Your task to perform on an android device: Open CNN.com Image 0: 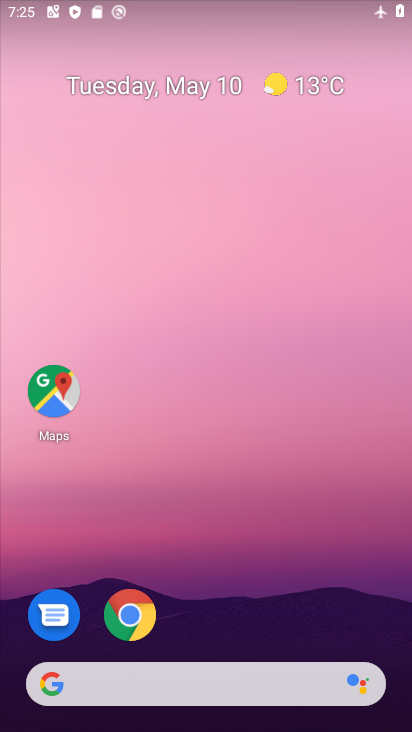
Step 0: click (125, 623)
Your task to perform on an android device: Open CNN.com Image 1: 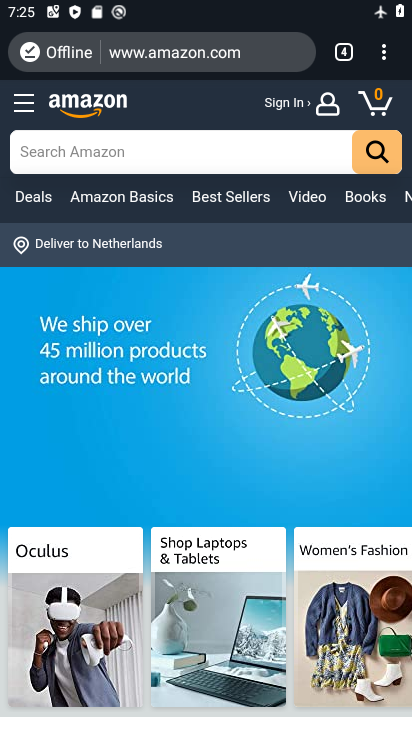
Step 1: click (381, 55)
Your task to perform on an android device: Open CNN.com Image 2: 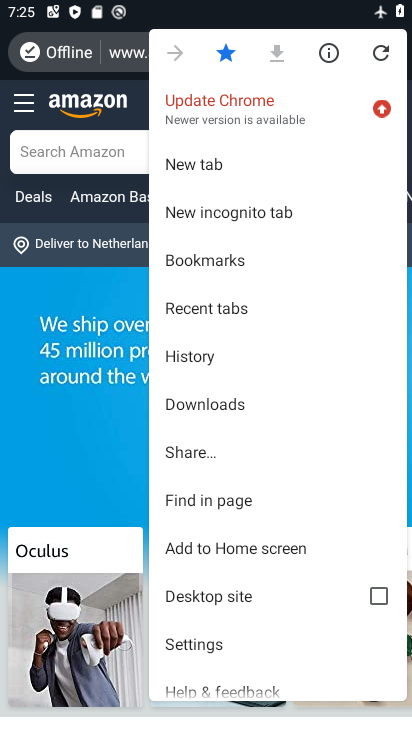
Step 2: click (211, 163)
Your task to perform on an android device: Open CNN.com Image 3: 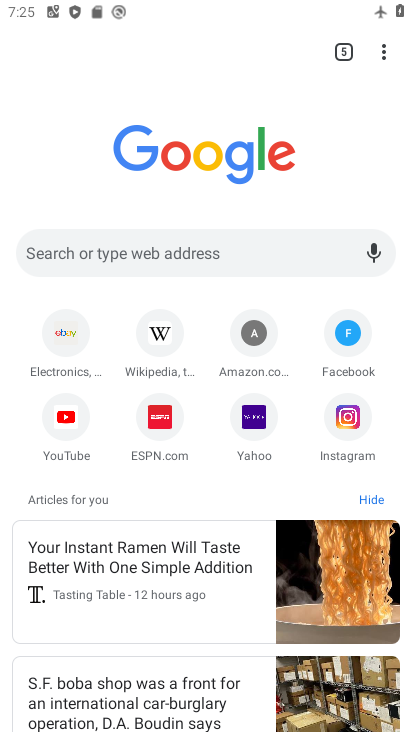
Step 3: click (175, 246)
Your task to perform on an android device: Open CNN.com Image 4: 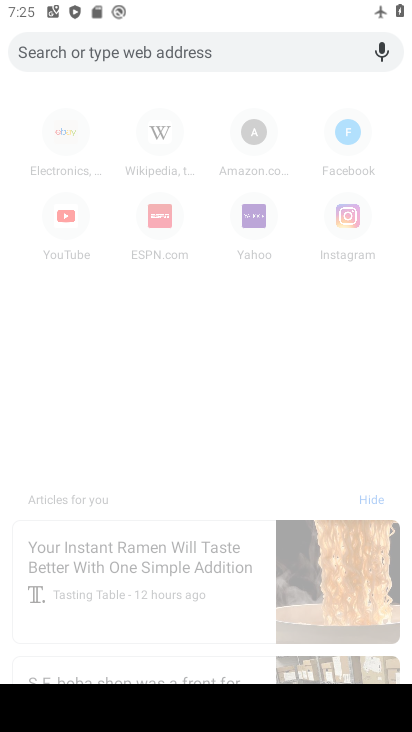
Step 4: type "cnn.com"
Your task to perform on an android device: Open CNN.com Image 5: 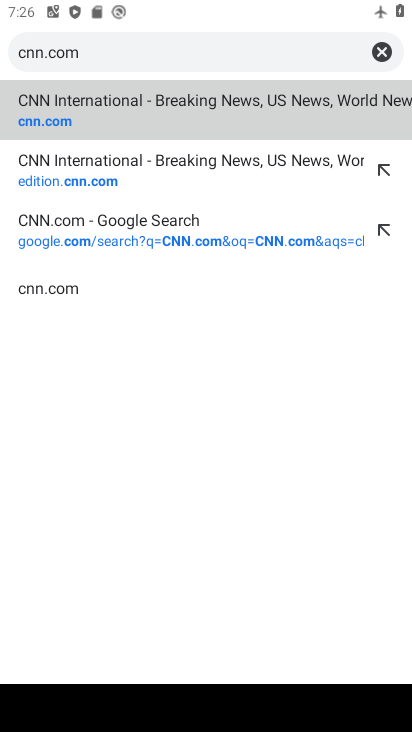
Step 5: click (56, 105)
Your task to perform on an android device: Open CNN.com Image 6: 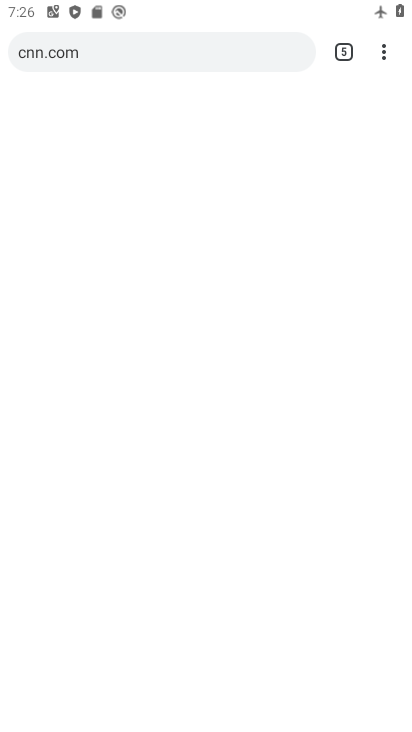
Step 6: click (56, 105)
Your task to perform on an android device: Open CNN.com Image 7: 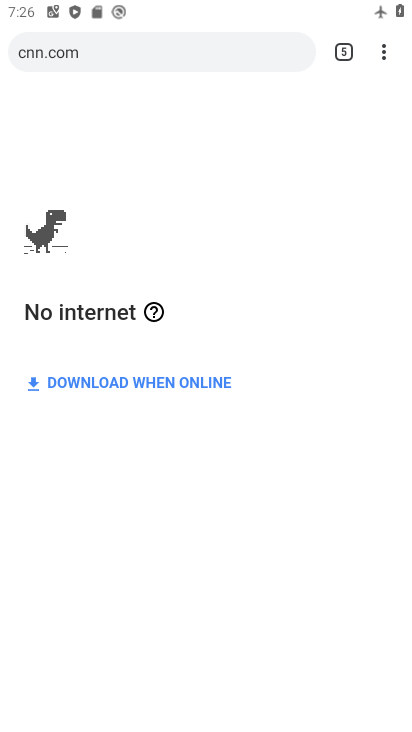
Step 7: click (56, 105)
Your task to perform on an android device: Open CNN.com Image 8: 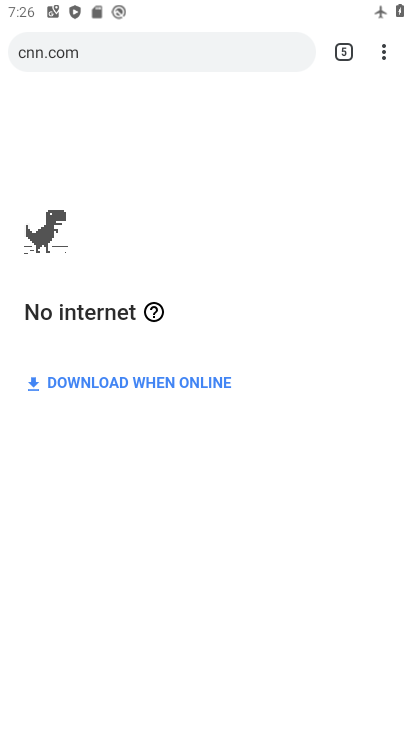
Step 8: click (56, 105)
Your task to perform on an android device: Open CNN.com Image 9: 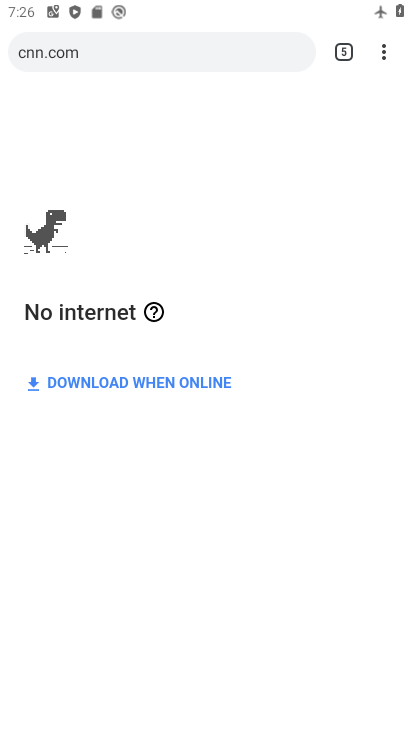
Step 9: task complete